Your task to perform on an android device: What's the weather going to be tomorrow? Image 0: 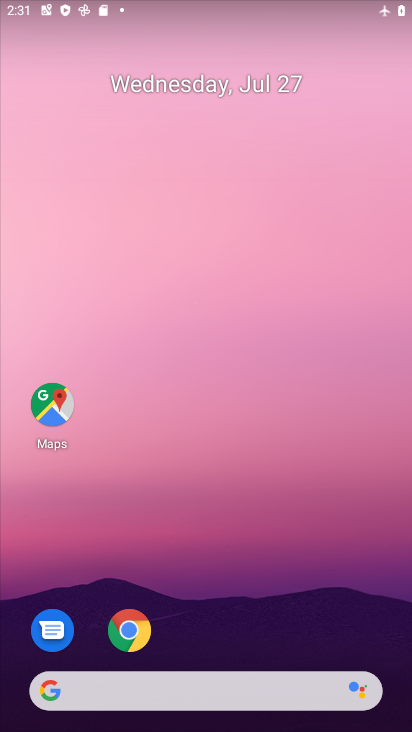
Step 0: drag from (394, 686) to (344, 124)
Your task to perform on an android device: What's the weather going to be tomorrow? Image 1: 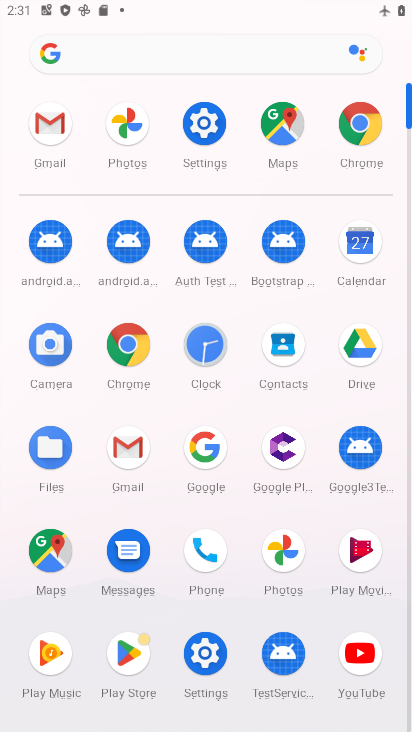
Step 1: click (224, 456)
Your task to perform on an android device: What's the weather going to be tomorrow? Image 2: 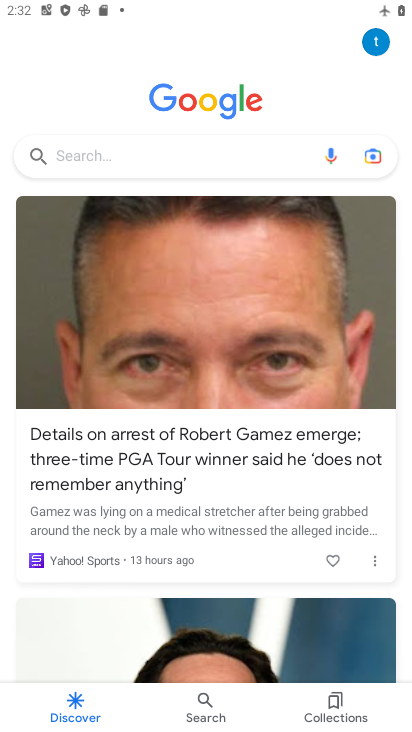
Step 2: task complete